Your task to perform on an android device: set the stopwatch Image 0: 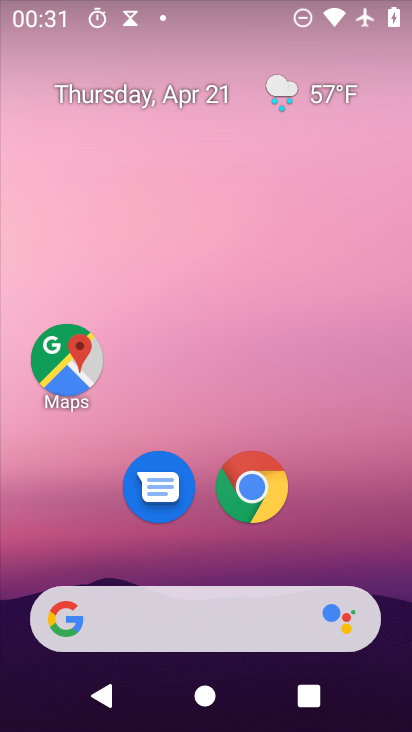
Step 0: drag from (360, 530) to (210, 66)
Your task to perform on an android device: set the stopwatch Image 1: 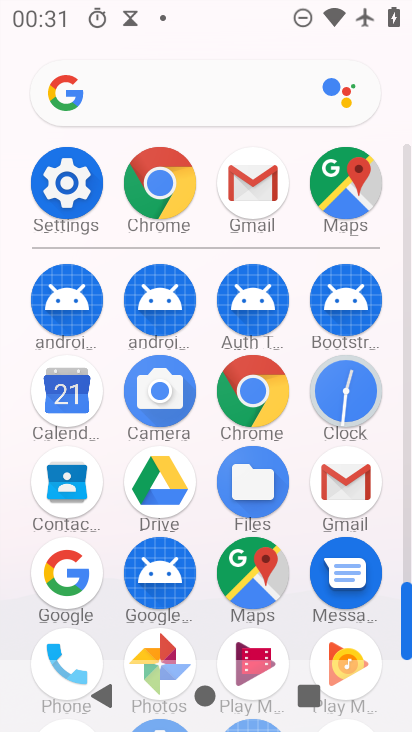
Step 1: drag from (8, 516) to (9, 193)
Your task to perform on an android device: set the stopwatch Image 2: 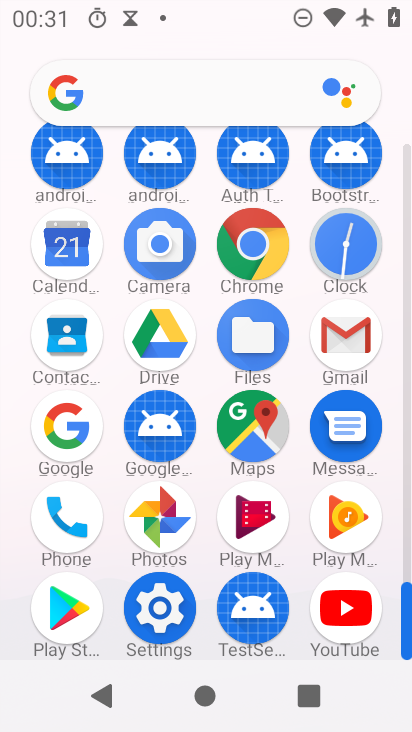
Step 2: drag from (16, 517) to (9, 270)
Your task to perform on an android device: set the stopwatch Image 3: 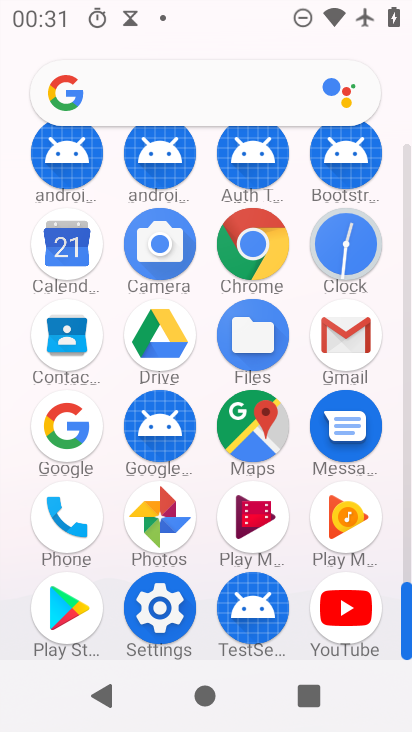
Step 3: drag from (10, 268) to (7, 395)
Your task to perform on an android device: set the stopwatch Image 4: 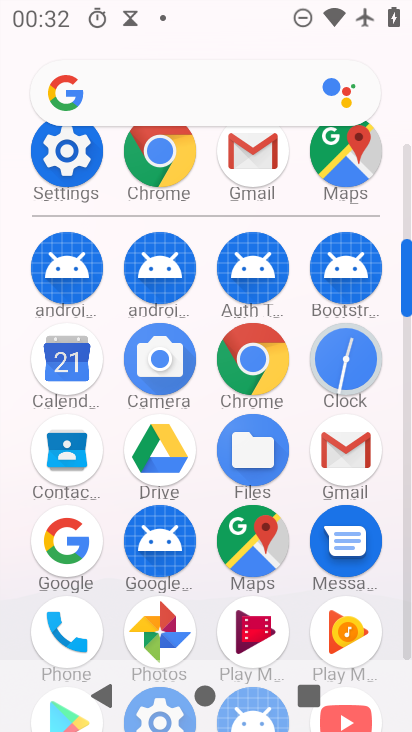
Step 4: click (343, 357)
Your task to perform on an android device: set the stopwatch Image 5: 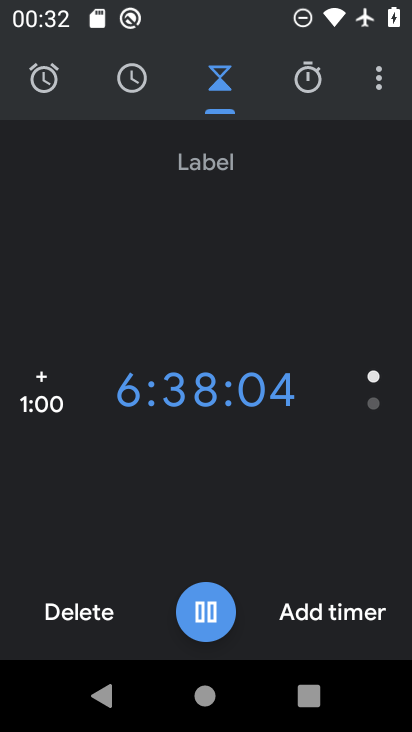
Step 5: click (307, 83)
Your task to perform on an android device: set the stopwatch Image 6: 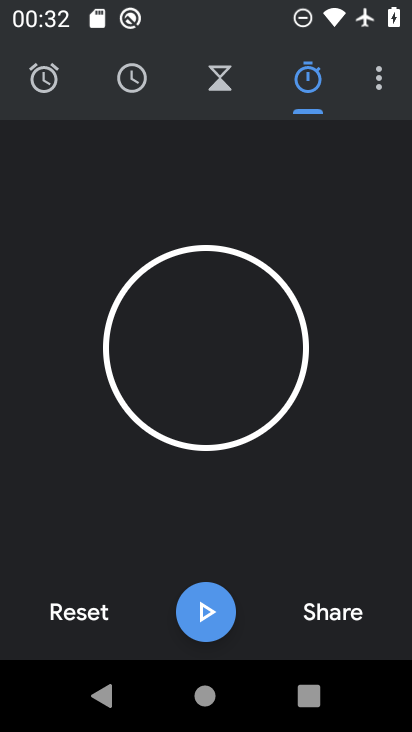
Step 6: click (195, 603)
Your task to perform on an android device: set the stopwatch Image 7: 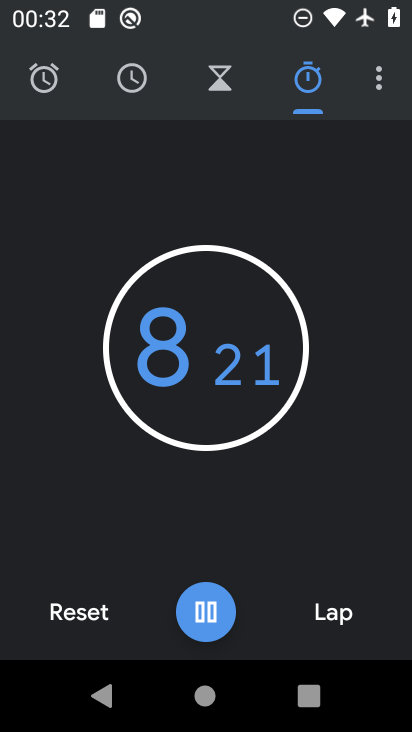
Step 7: task complete